Your task to perform on an android device: Go to CNN.com Image 0: 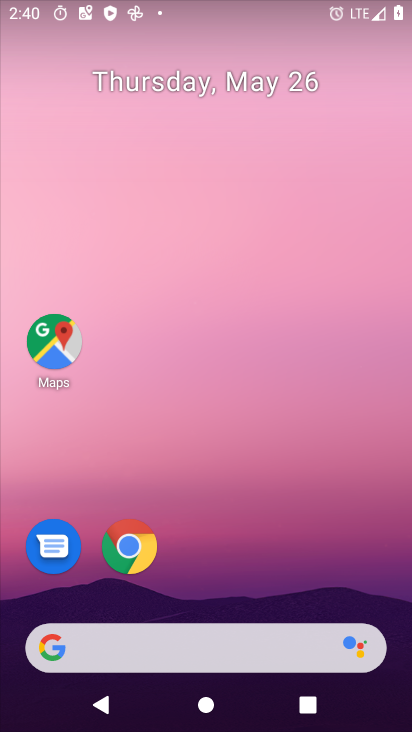
Step 0: drag from (210, 564) to (254, 105)
Your task to perform on an android device: Go to CNN.com Image 1: 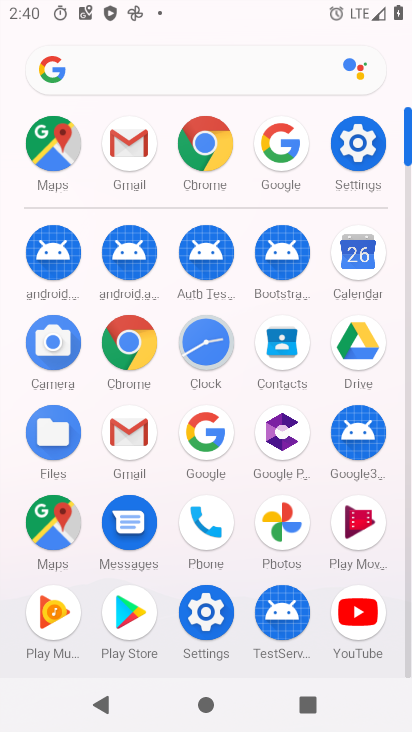
Step 1: click (212, 435)
Your task to perform on an android device: Go to CNN.com Image 2: 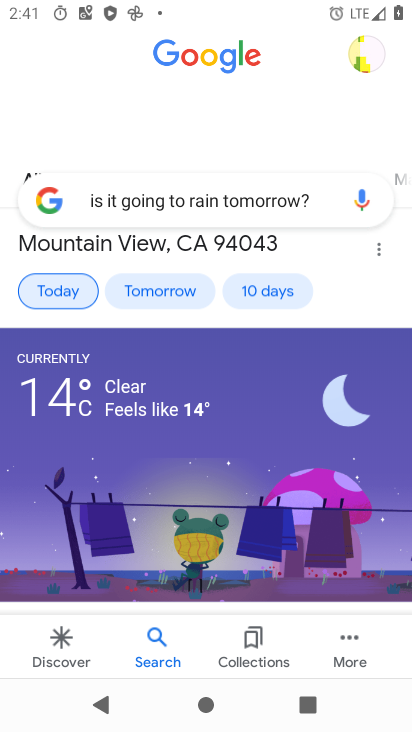
Step 2: click (308, 196)
Your task to perform on an android device: Go to CNN.com Image 3: 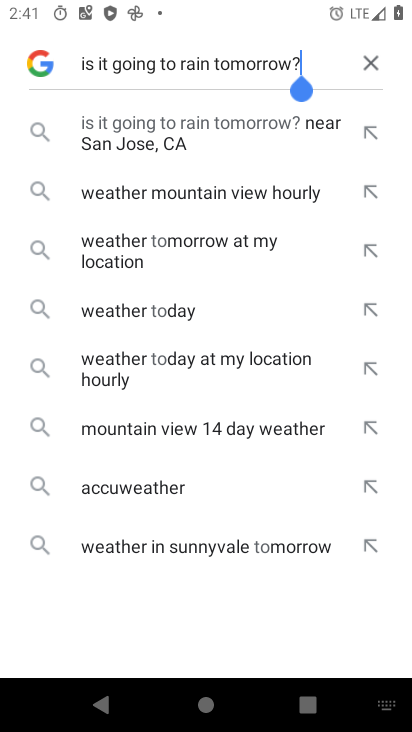
Step 3: click (371, 61)
Your task to perform on an android device: Go to CNN.com Image 4: 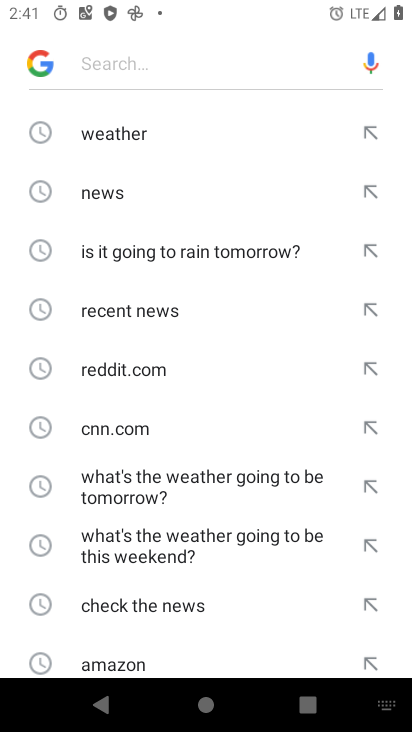
Step 4: click (131, 429)
Your task to perform on an android device: Go to CNN.com Image 5: 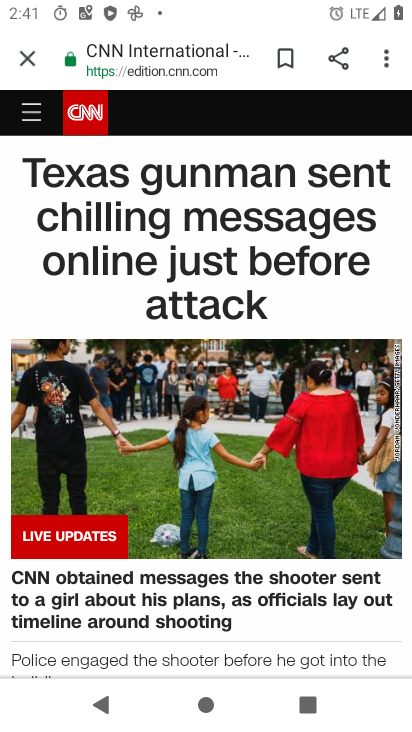
Step 5: task complete